Your task to perform on an android device: Search for pizza restaurants on Maps Image 0: 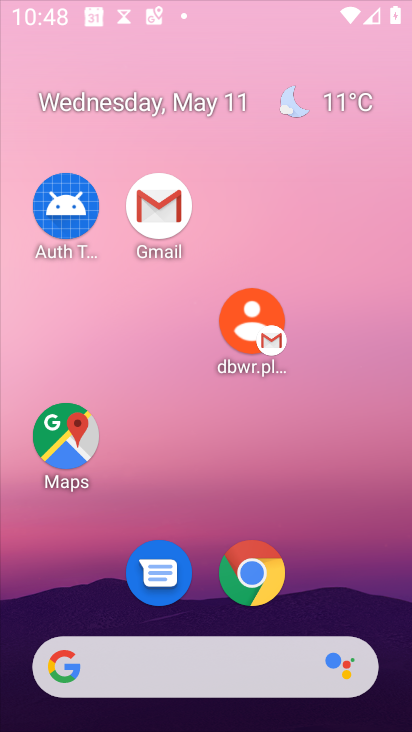
Step 0: click (96, 0)
Your task to perform on an android device: Search for pizza restaurants on Maps Image 1: 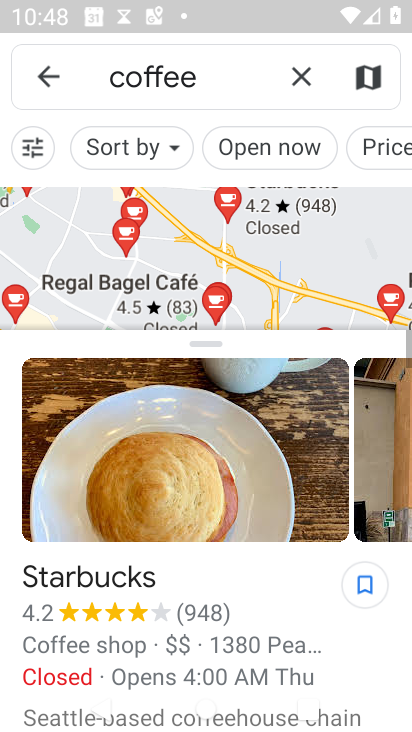
Step 1: drag from (248, 440) to (177, 18)
Your task to perform on an android device: Search for pizza restaurants on Maps Image 2: 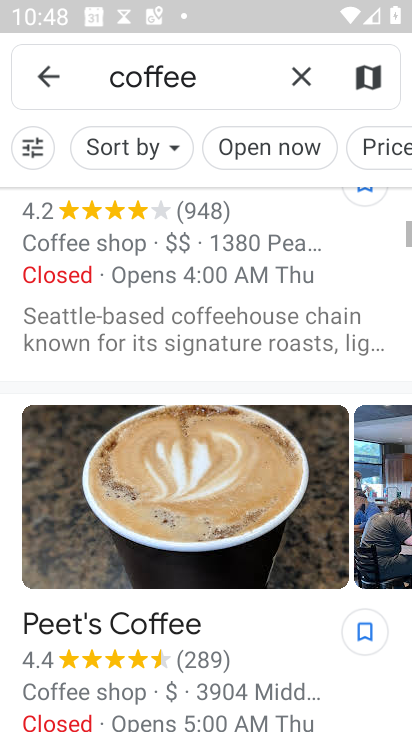
Step 2: drag from (193, 465) to (176, 120)
Your task to perform on an android device: Search for pizza restaurants on Maps Image 3: 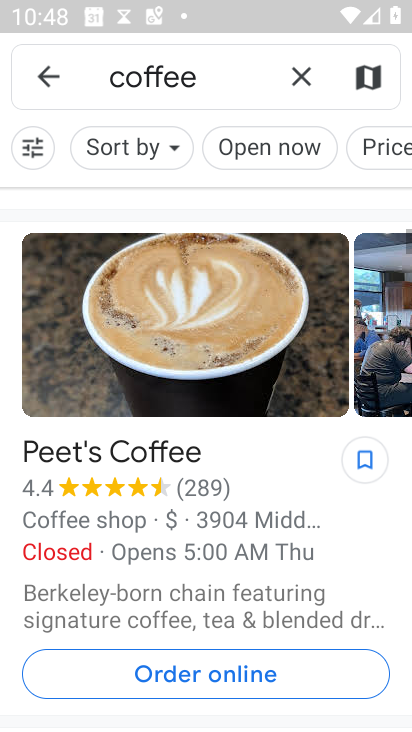
Step 3: click (305, 72)
Your task to perform on an android device: Search for pizza restaurants on Maps Image 4: 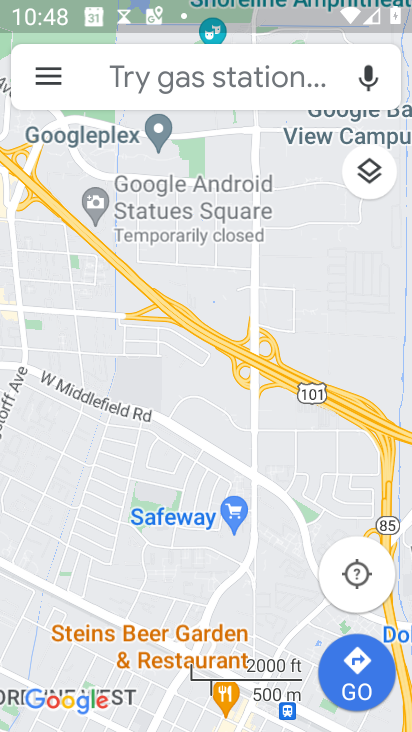
Step 4: click (113, 74)
Your task to perform on an android device: Search for pizza restaurants on Maps Image 5: 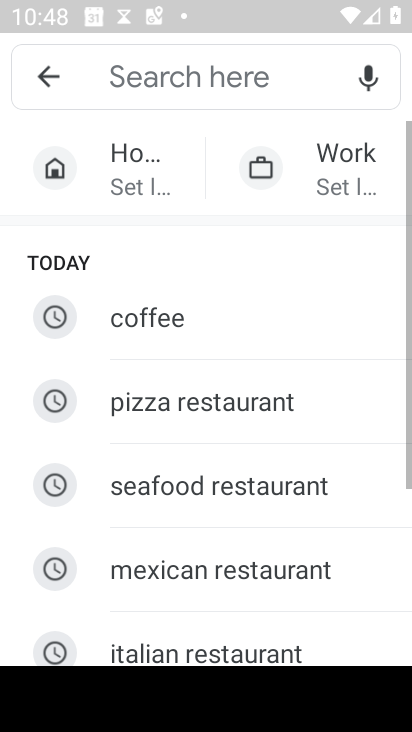
Step 5: click (198, 413)
Your task to perform on an android device: Search for pizza restaurants on Maps Image 6: 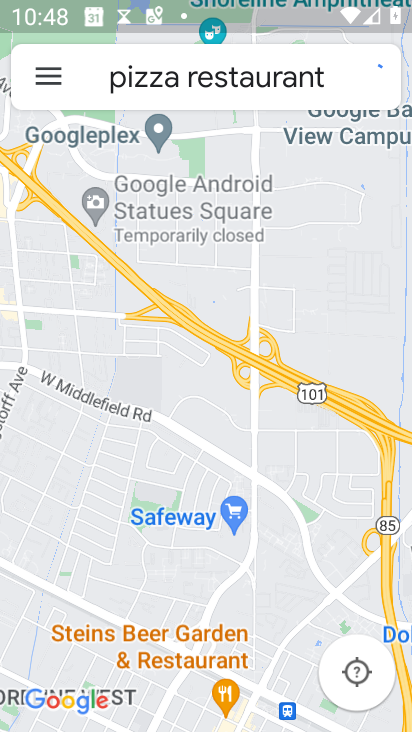
Step 6: task complete